Your task to perform on an android device: add a contact Image 0: 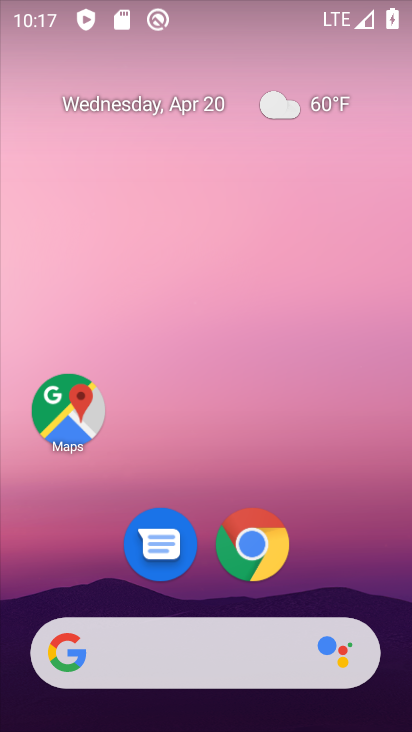
Step 0: press home button
Your task to perform on an android device: add a contact Image 1: 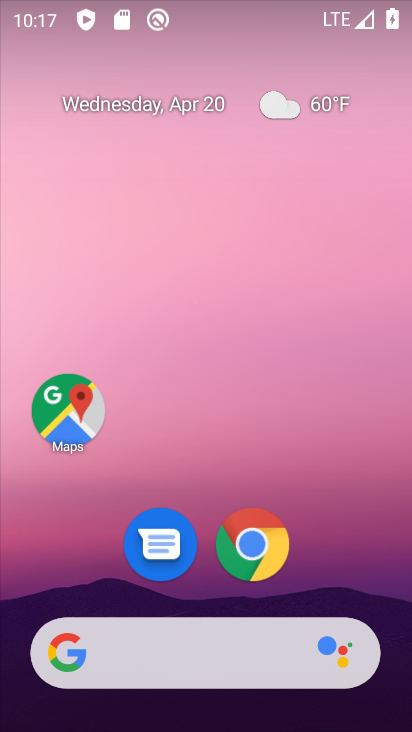
Step 1: drag from (367, 574) to (361, 147)
Your task to perform on an android device: add a contact Image 2: 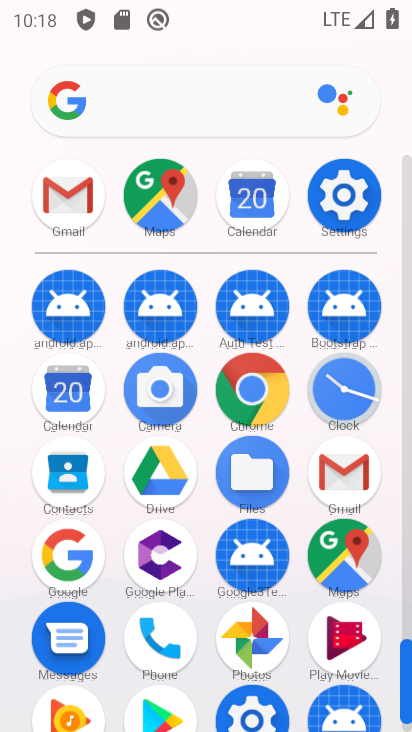
Step 2: click (79, 474)
Your task to perform on an android device: add a contact Image 3: 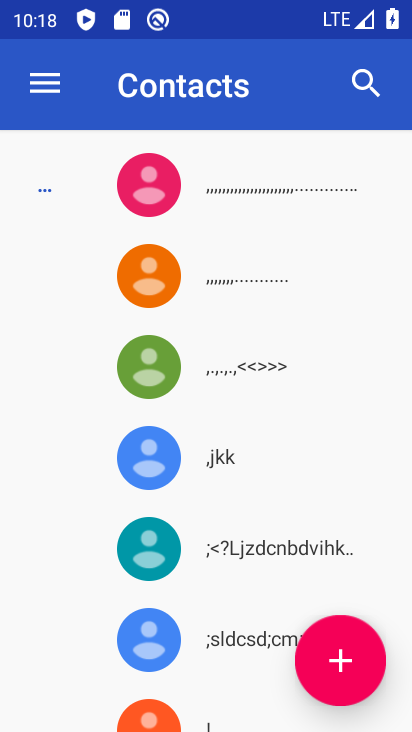
Step 3: click (339, 682)
Your task to perform on an android device: add a contact Image 4: 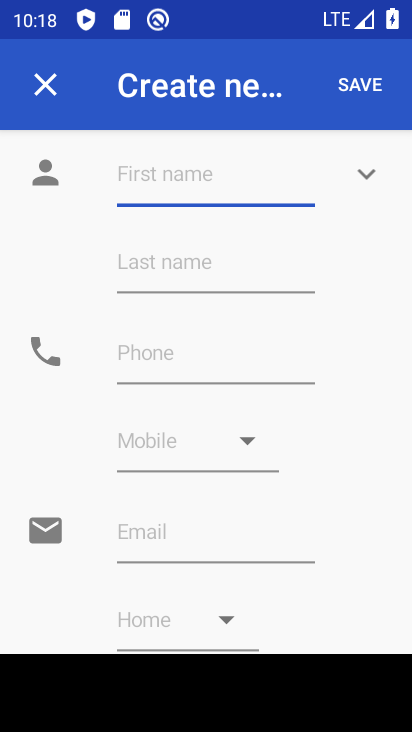
Step 4: click (231, 190)
Your task to perform on an android device: add a contact Image 5: 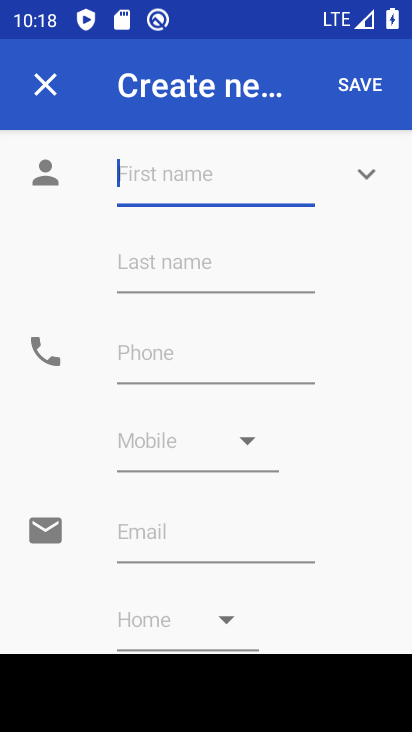
Step 5: type "bkjbkb"
Your task to perform on an android device: add a contact Image 6: 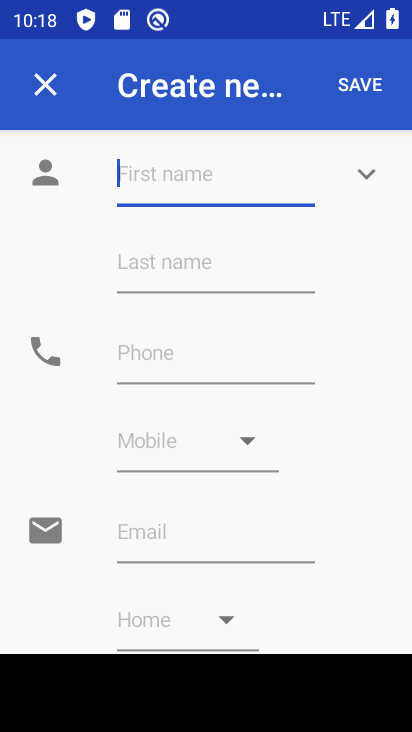
Step 6: click (137, 354)
Your task to perform on an android device: add a contact Image 7: 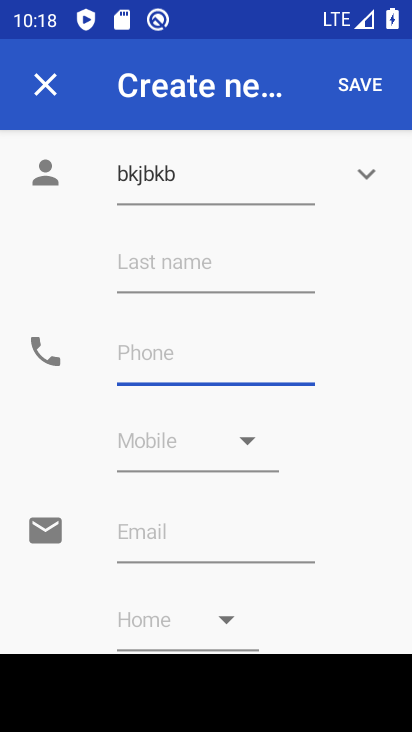
Step 7: type "9879879878"
Your task to perform on an android device: add a contact Image 8: 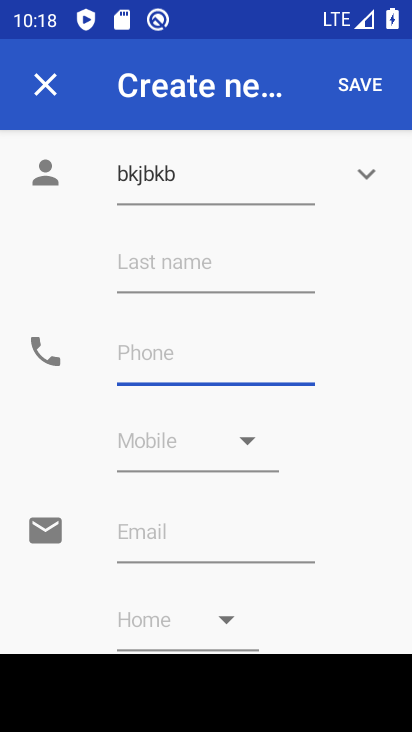
Step 8: click (376, 525)
Your task to perform on an android device: add a contact Image 9: 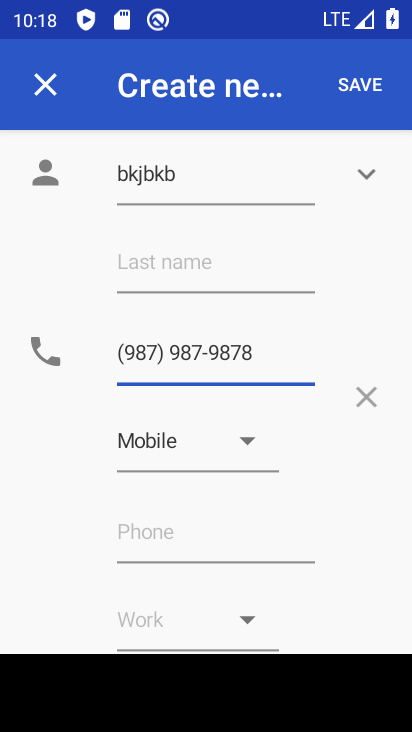
Step 9: click (340, 89)
Your task to perform on an android device: add a contact Image 10: 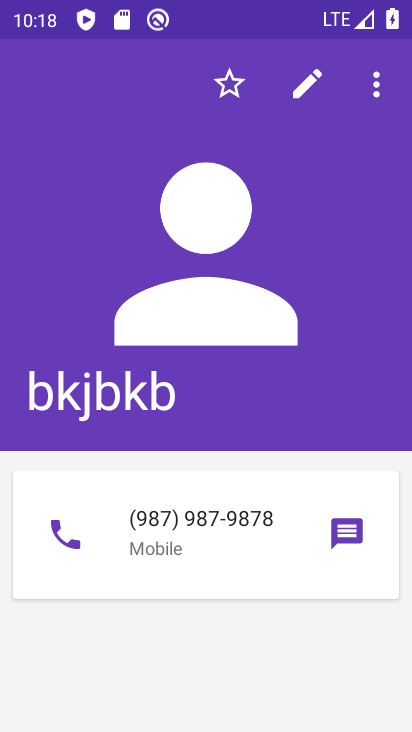
Step 10: task complete